Your task to perform on an android device: Go to accessibility settings Image 0: 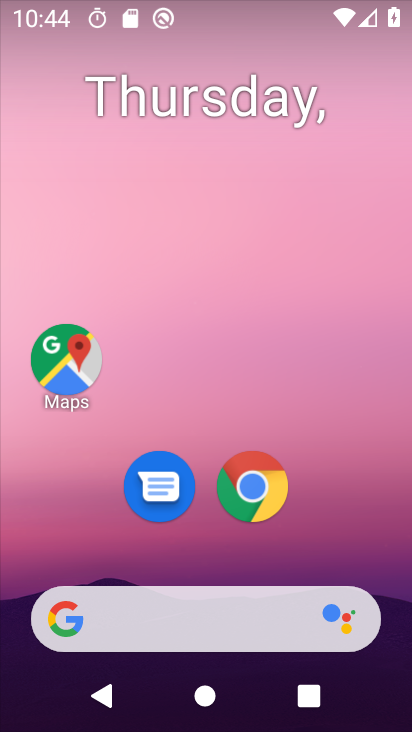
Step 0: drag from (404, 243) to (401, 183)
Your task to perform on an android device: Go to accessibility settings Image 1: 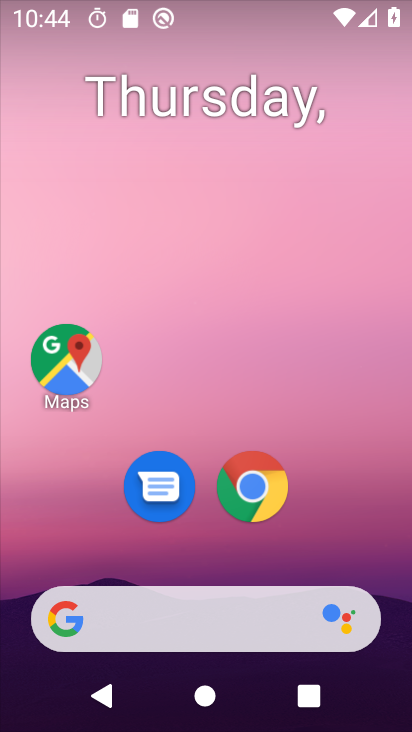
Step 1: drag from (378, 580) to (354, 158)
Your task to perform on an android device: Go to accessibility settings Image 2: 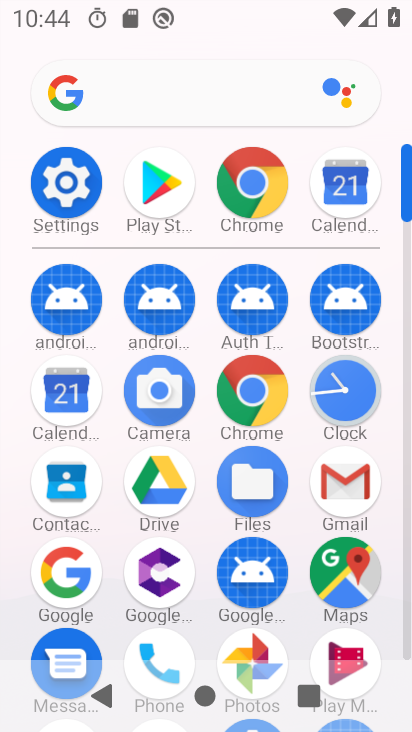
Step 2: click (58, 193)
Your task to perform on an android device: Go to accessibility settings Image 3: 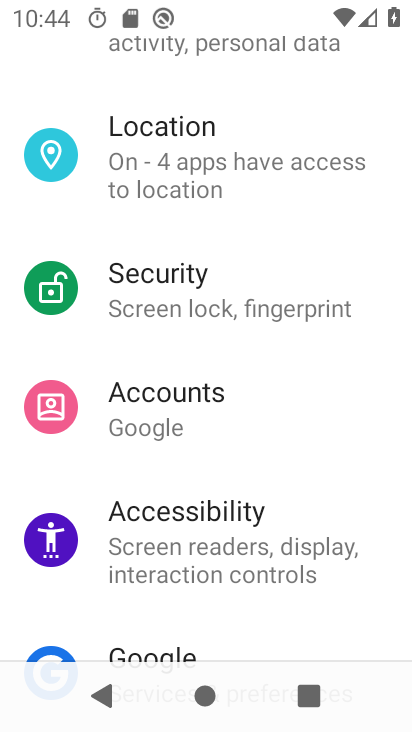
Step 3: click (138, 530)
Your task to perform on an android device: Go to accessibility settings Image 4: 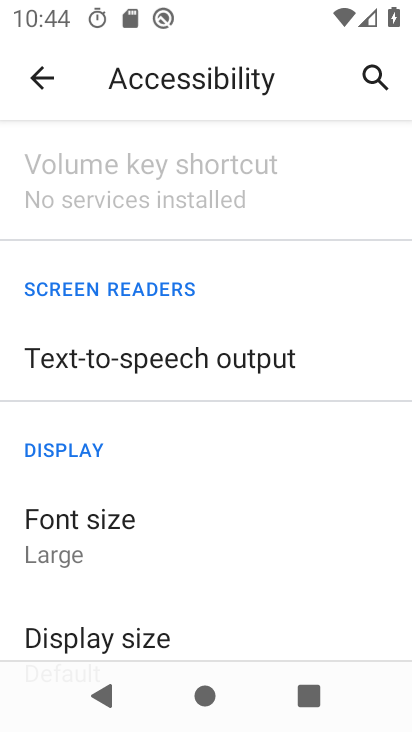
Step 4: task complete